Your task to perform on an android device: Open privacy settings Image 0: 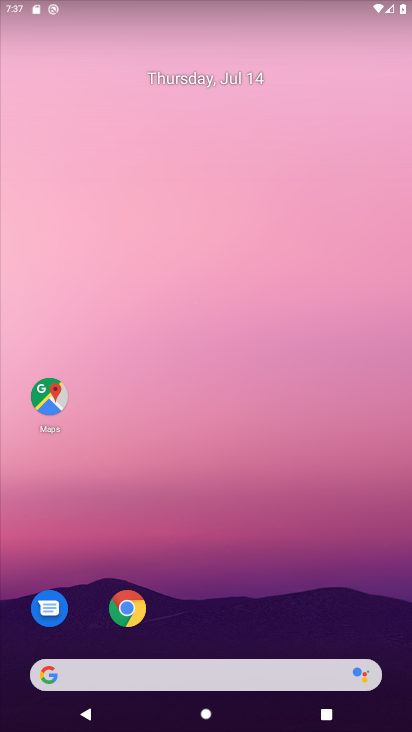
Step 0: drag from (249, 613) to (214, 35)
Your task to perform on an android device: Open privacy settings Image 1: 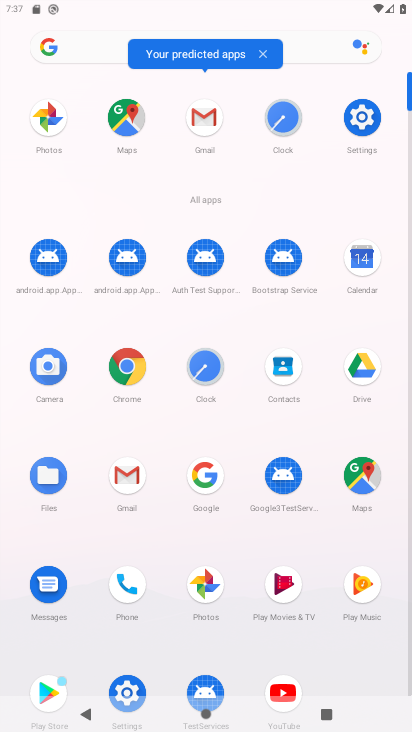
Step 1: click (364, 124)
Your task to perform on an android device: Open privacy settings Image 2: 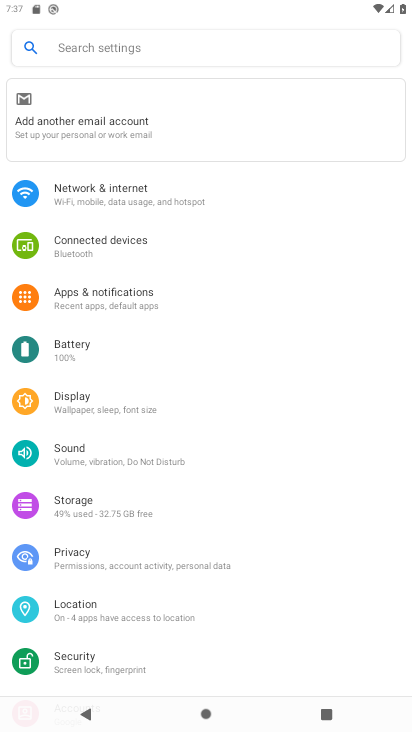
Step 2: click (91, 555)
Your task to perform on an android device: Open privacy settings Image 3: 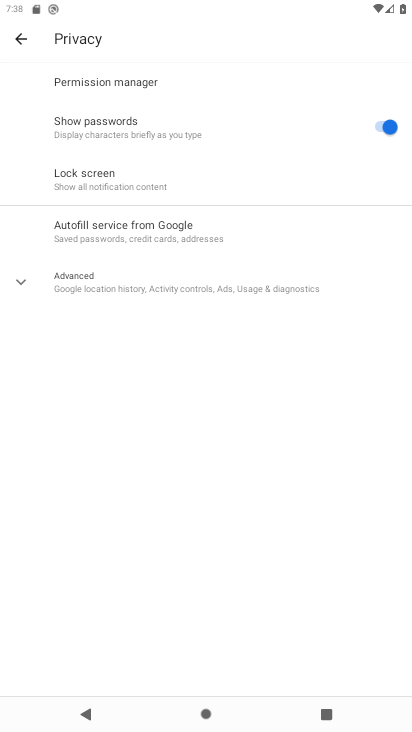
Step 3: task complete